Your task to perform on an android device: turn off notifications in google photos Image 0: 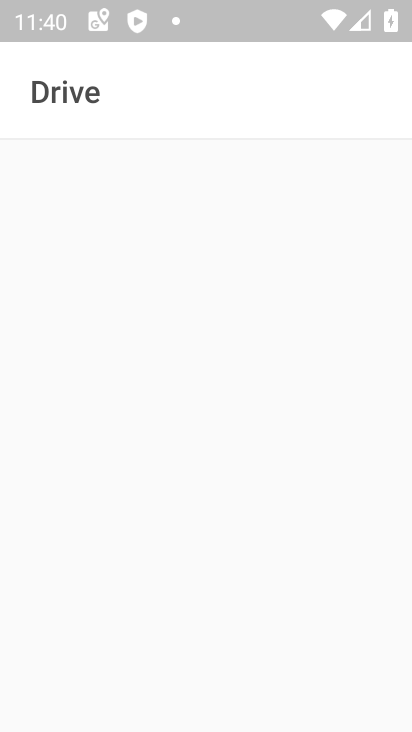
Step 0: press home button
Your task to perform on an android device: turn off notifications in google photos Image 1: 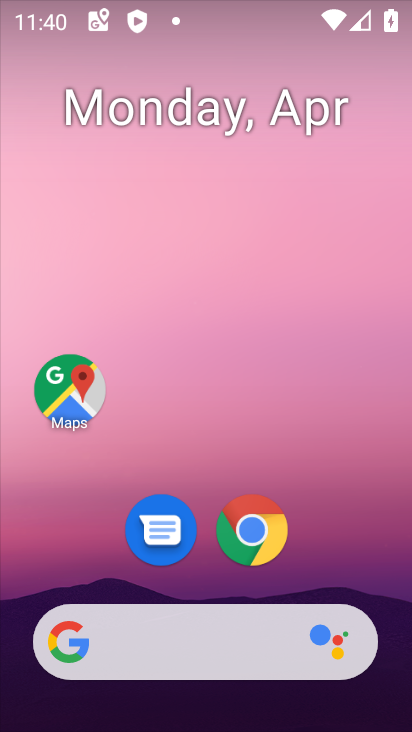
Step 1: drag from (212, 488) to (212, 106)
Your task to perform on an android device: turn off notifications in google photos Image 2: 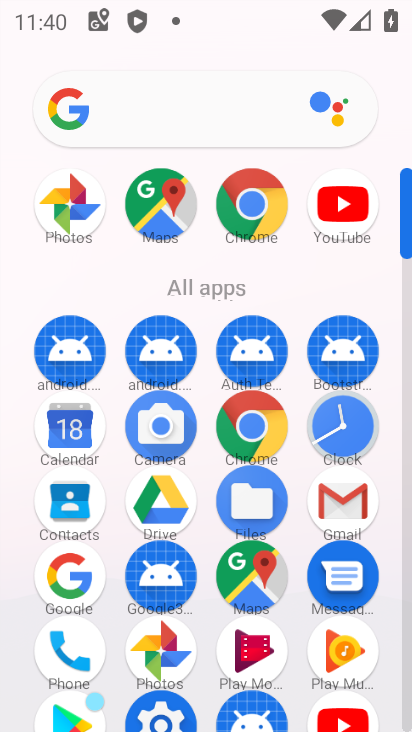
Step 2: click (66, 205)
Your task to perform on an android device: turn off notifications in google photos Image 3: 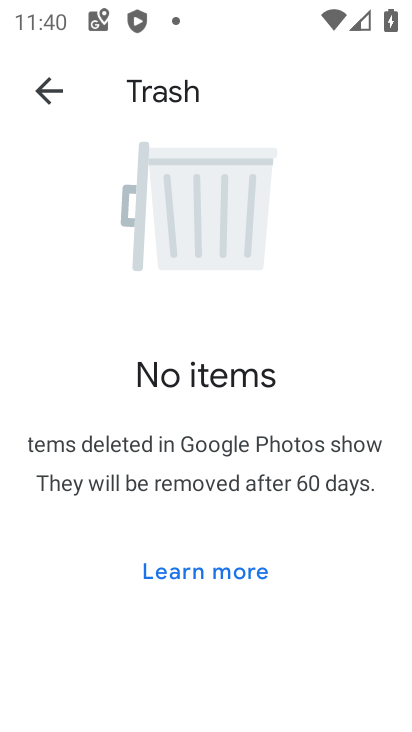
Step 3: click (50, 88)
Your task to perform on an android device: turn off notifications in google photos Image 4: 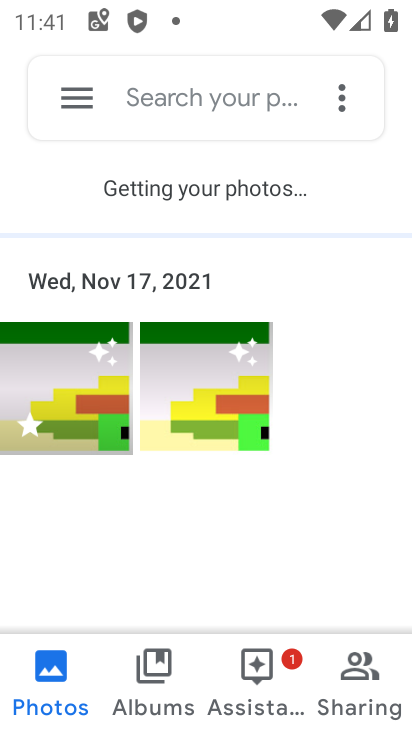
Step 4: click (77, 98)
Your task to perform on an android device: turn off notifications in google photos Image 5: 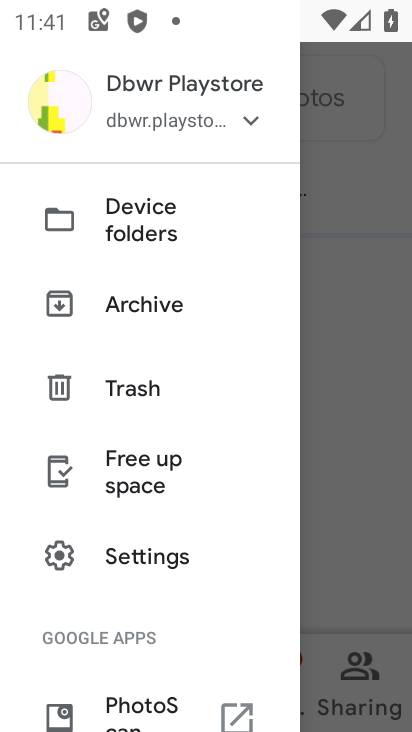
Step 5: click (140, 551)
Your task to perform on an android device: turn off notifications in google photos Image 6: 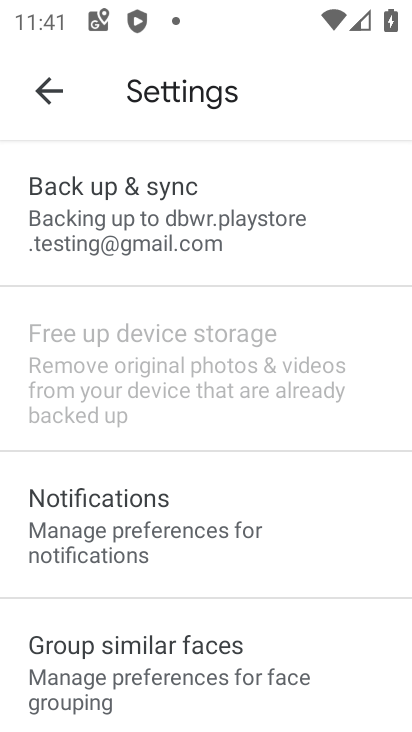
Step 6: click (109, 529)
Your task to perform on an android device: turn off notifications in google photos Image 7: 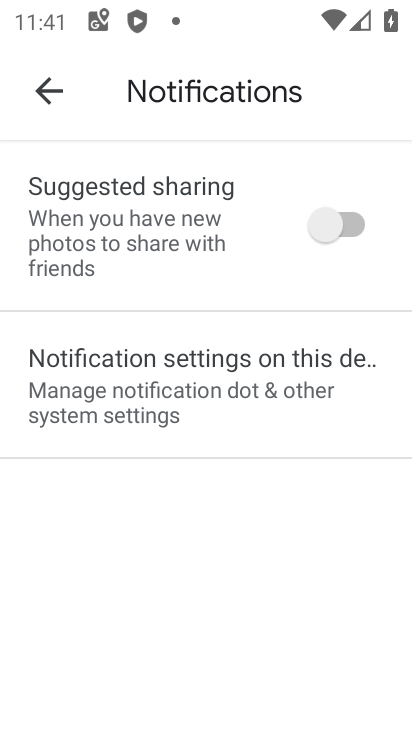
Step 7: click (343, 223)
Your task to perform on an android device: turn off notifications in google photos Image 8: 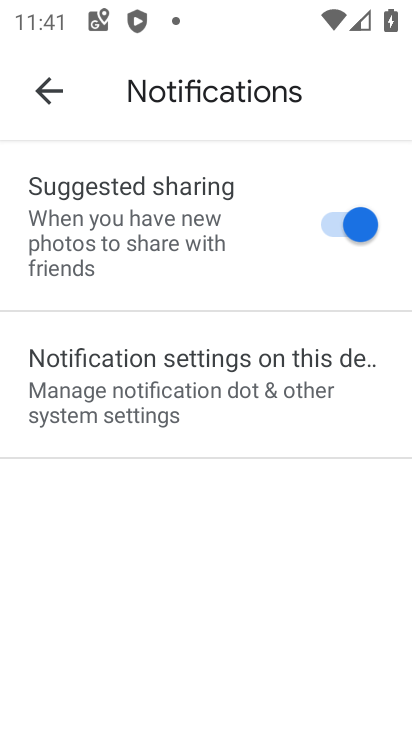
Step 8: task complete